Your task to perform on an android device: Open wifi settings Image 0: 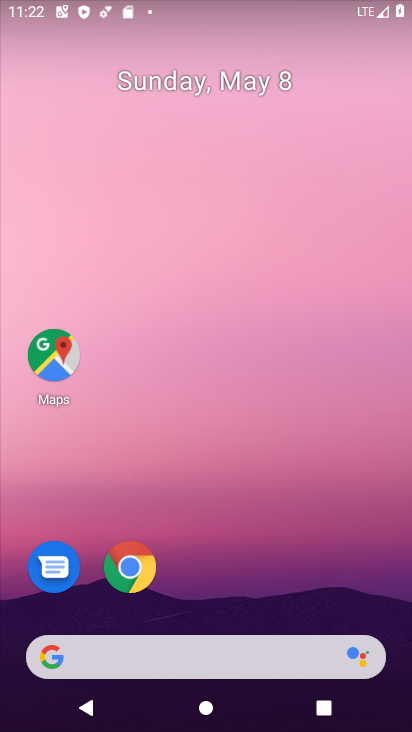
Step 0: drag from (208, 611) to (262, 58)
Your task to perform on an android device: Open wifi settings Image 1: 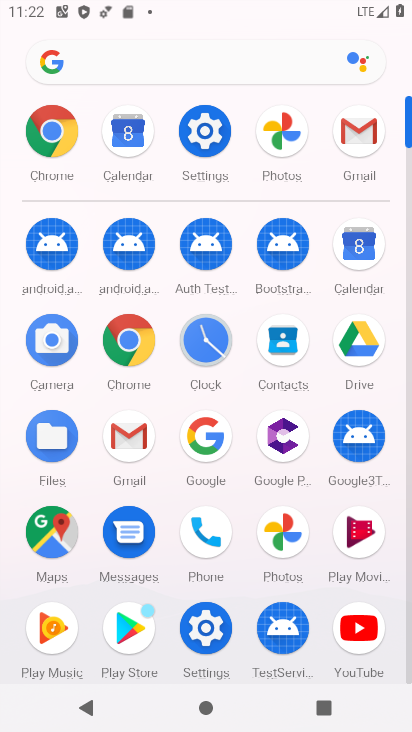
Step 1: click (203, 124)
Your task to perform on an android device: Open wifi settings Image 2: 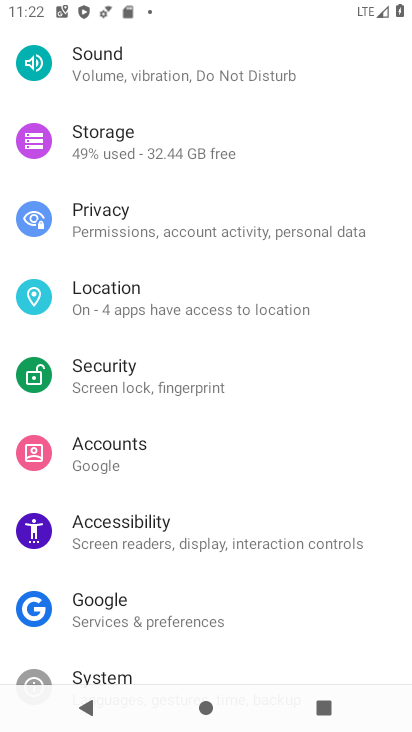
Step 2: drag from (173, 136) to (197, 519)
Your task to perform on an android device: Open wifi settings Image 3: 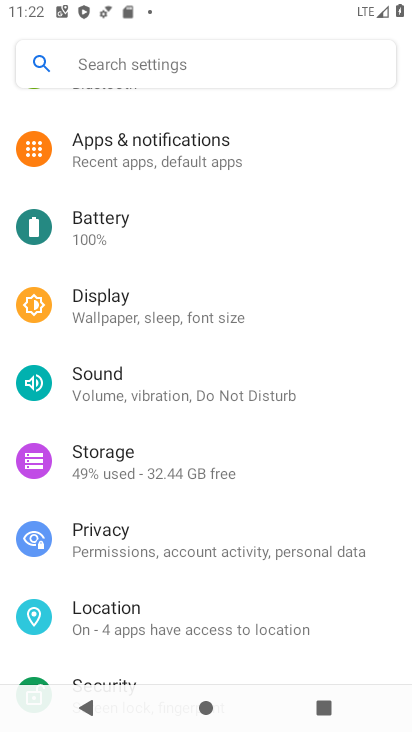
Step 3: drag from (141, 154) to (180, 644)
Your task to perform on an android device: Open wifi settings Image 4: 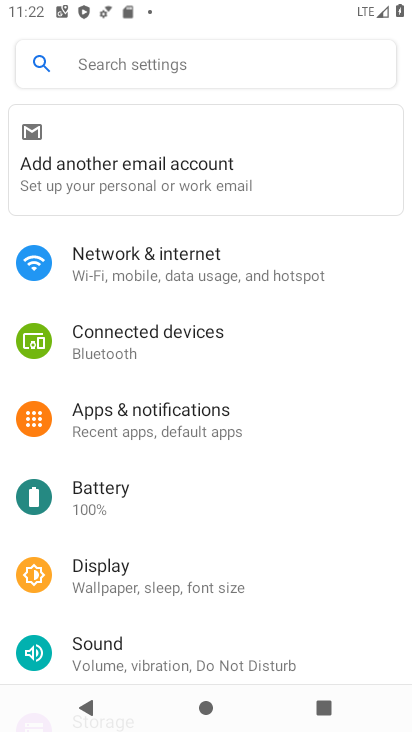
Step 4: click (144, 269)
Your task to perform on an android device: Open wifi settings Image 5: 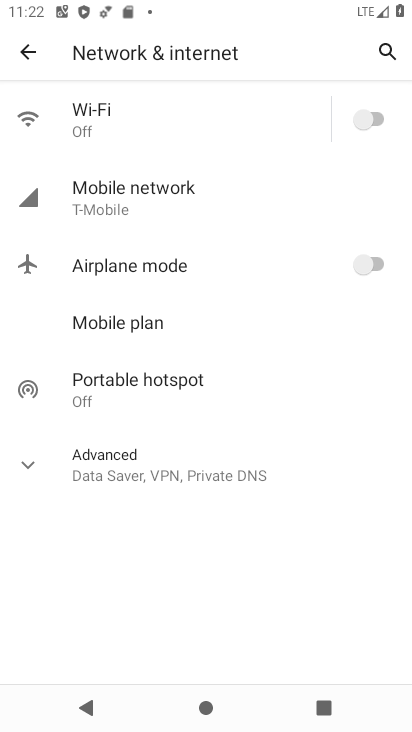
Step 5: click (142, 123)
Your task to perform on an android device: Open wifi settings Image 6: 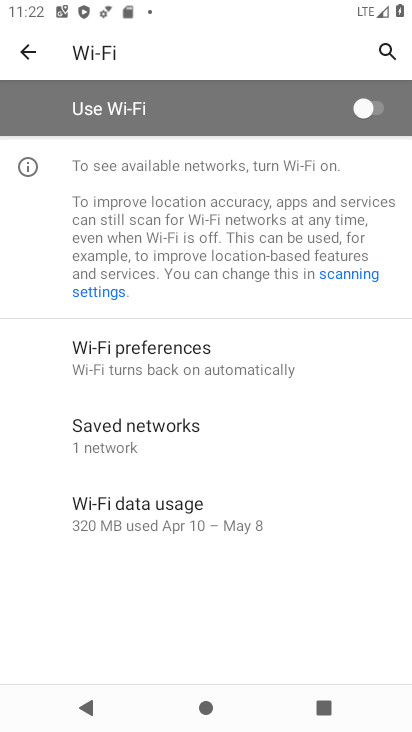
Step 6: click (371, 96)
Your task to perform on an android device: Open wifi settings Image 7: 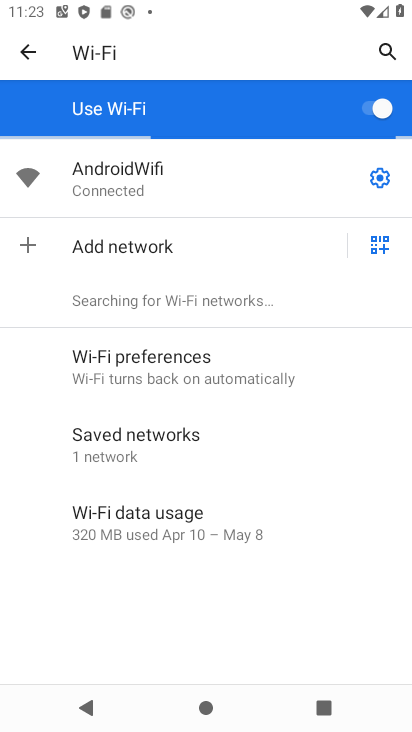
Step 7: task complete